Your task to perform on an android device: move an email to a new category in the gmail app Image 0: 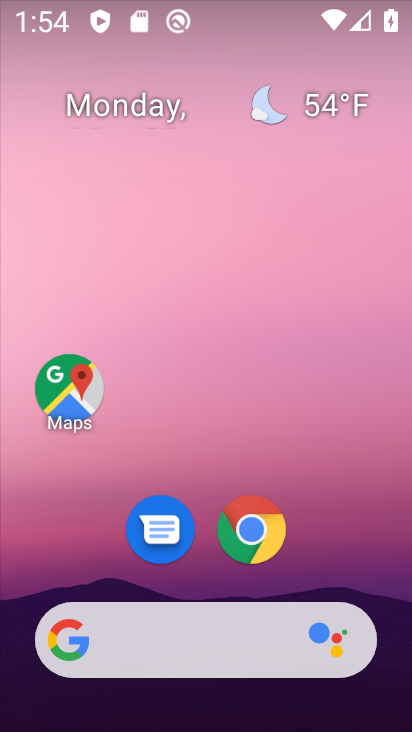
Step 0: drag from (99, 603) to (206, 184)
Your task to perform on an android device: move an email to a new category in the gmail app Image 1: 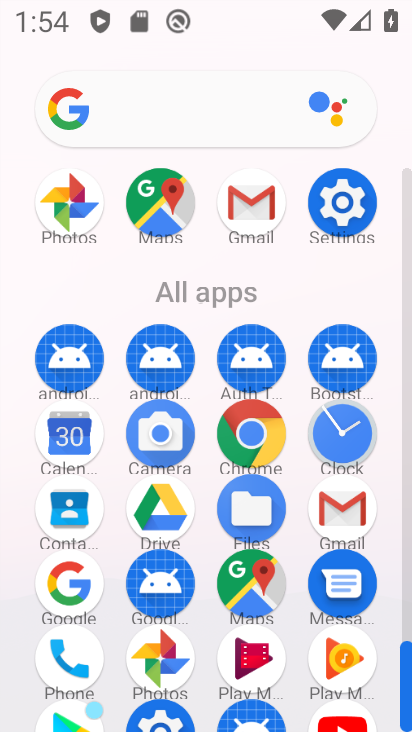
Step 1: drag from (202, 557) to (266, 317)
Your task to perform on an android device: move an email to a new category in the gmail app Image 2: 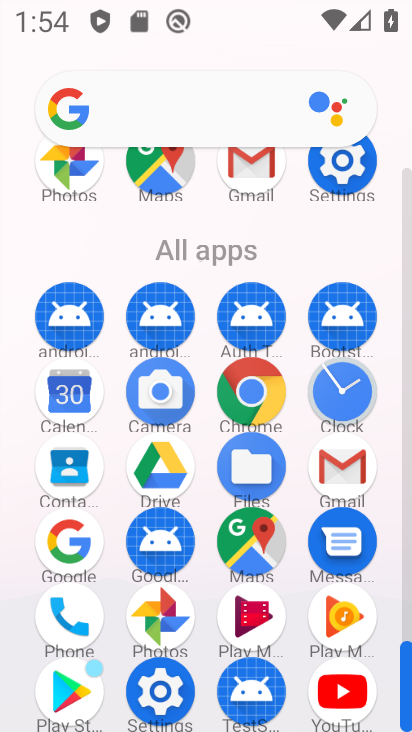
Step 2: click (345, 477)
Your task to perform on an android device: move an email to a new category in the gmail app Image 3: 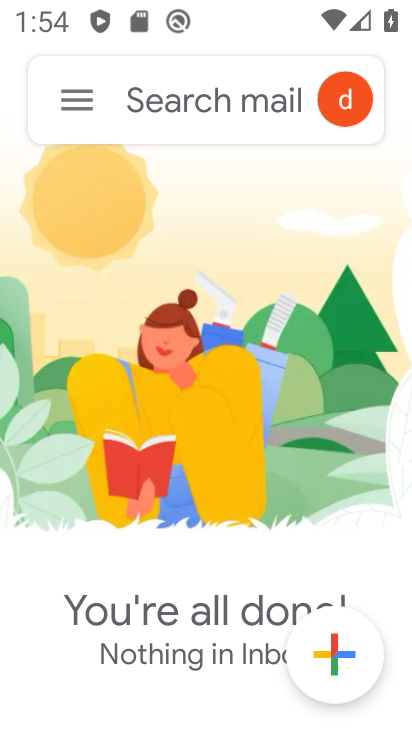
Step 3: click (75, 102)
Your task to perform on an android device: move an email to a new category in the gmail app Image 4: 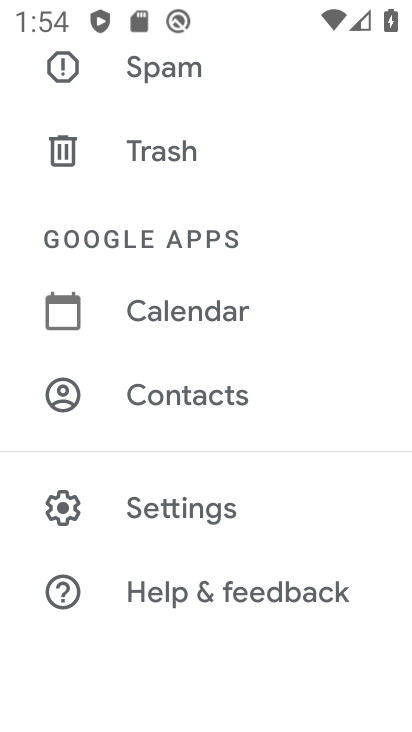
Step 4: drag from (219, 172) to (211, 470)
Your task to perform on an android device: move an email to a new category in the gmail app Image 5: 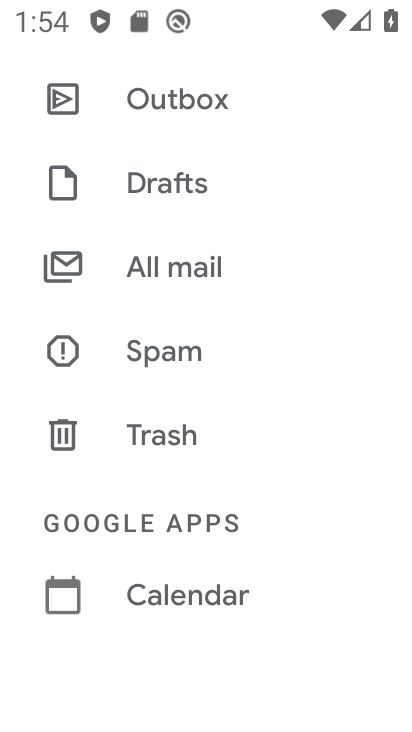
Step 5: click (213, 290)
Your task to perform on an android device: move an email to a new category in the gmail app Image 6: 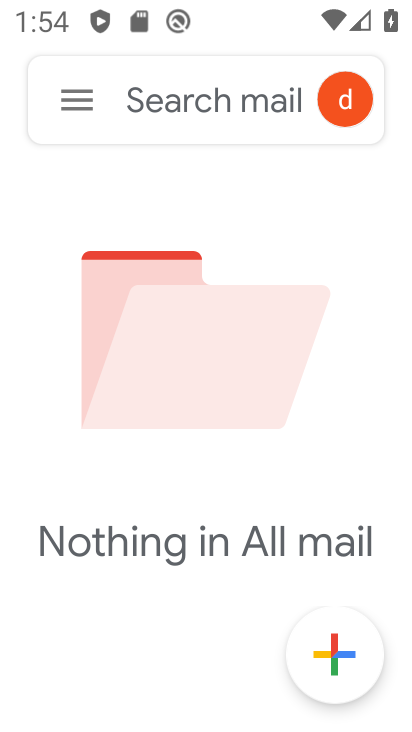
Step 6: task complete